Your task to perform on an android device: open chrome privacy settings Image 0: 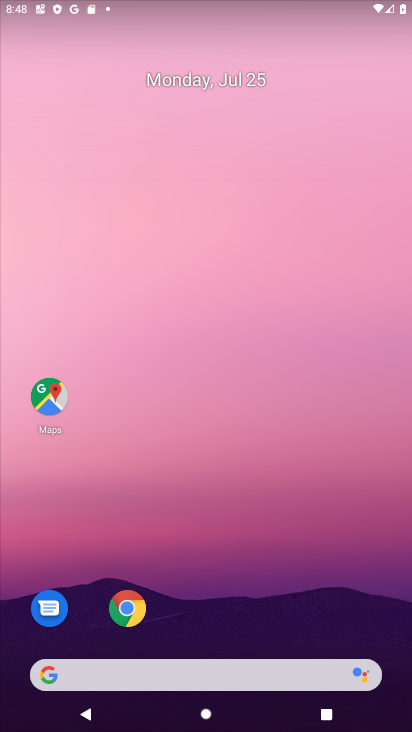
Step 0: click (118, 622)
Your task to perform on an android device: open chrome privacy settings Image 1: 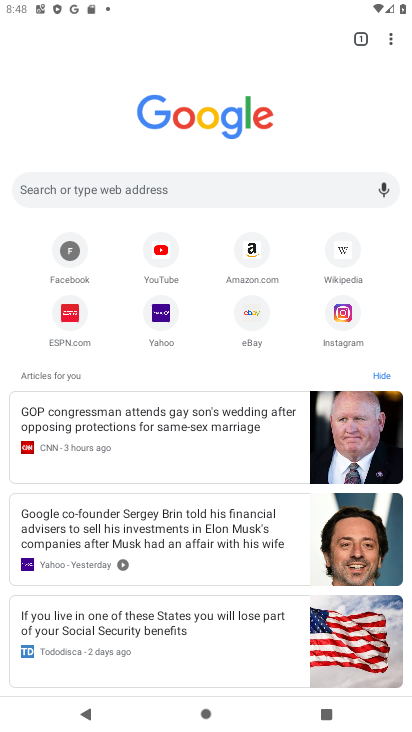
Step 1: click (386, 39)
Your task to perform on an android device: open chrome privacy settings Image 2: 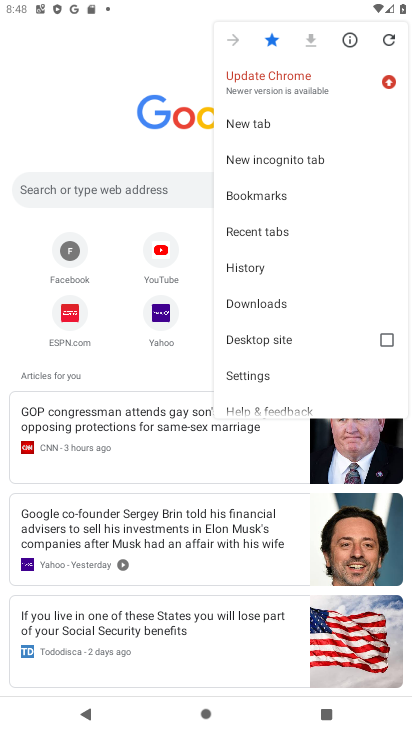
Step 2: click (290, 371)
Your task to perform on an android device: open chrome privacy settings Image 3: 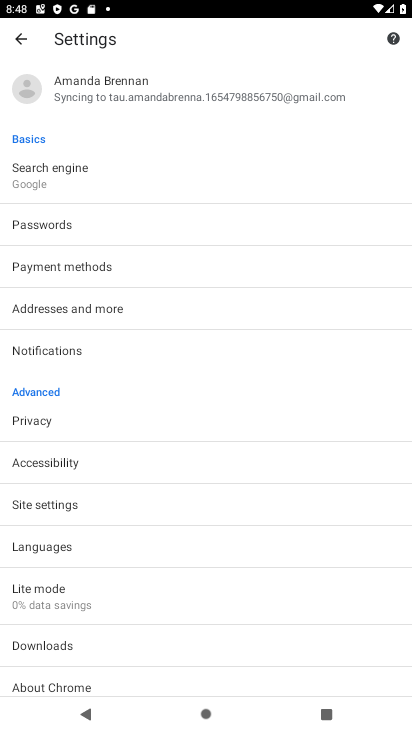
Step 3: click (61, 414)
Your task to perform on an android device: open chrome privacy settings Image 4: 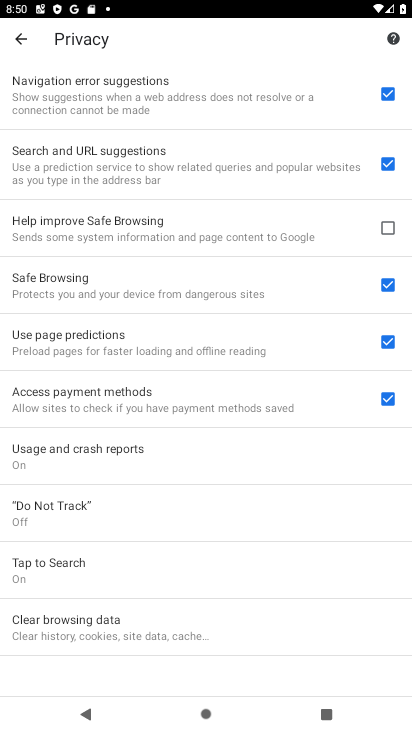
Step 4: task complete